Your task to perform on an android device: Do I have any events tomorrow? Image 0: 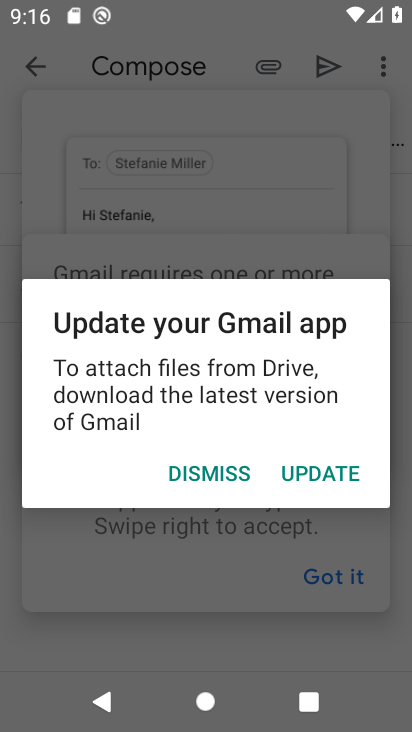
Step 0: press home button
Your task to perform on an android device: Do I have any events tomorrow? Image 1: 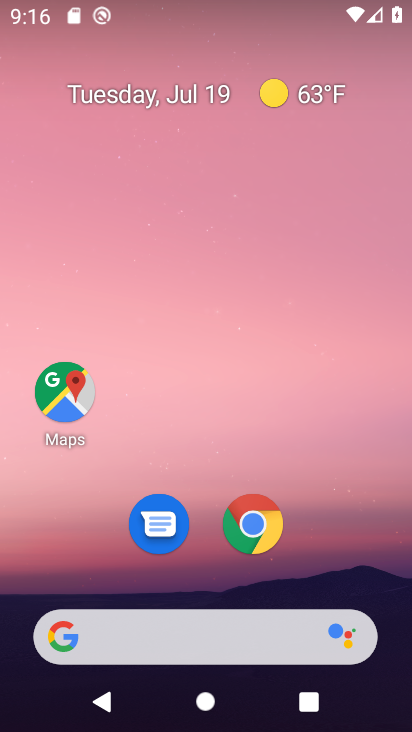
Step 1: drag from (150, 621) to (290, 108)
Your task to perform on an android device: Do I have any events tomorrow? Image 2: 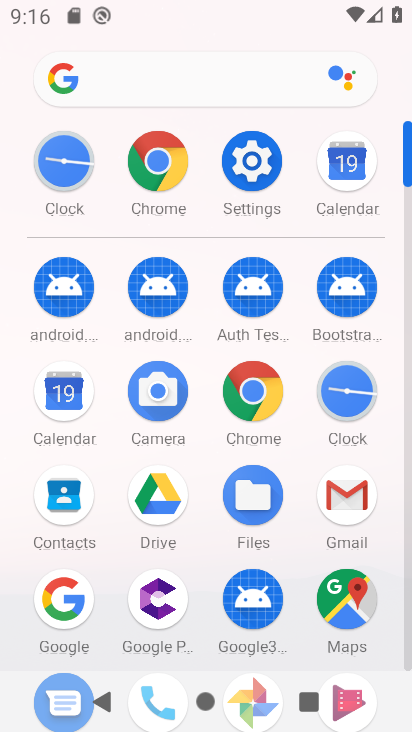
Step 2: click (57, 390)
Your task to perform on an android device: Do I have any events tomorrow? Image 3: 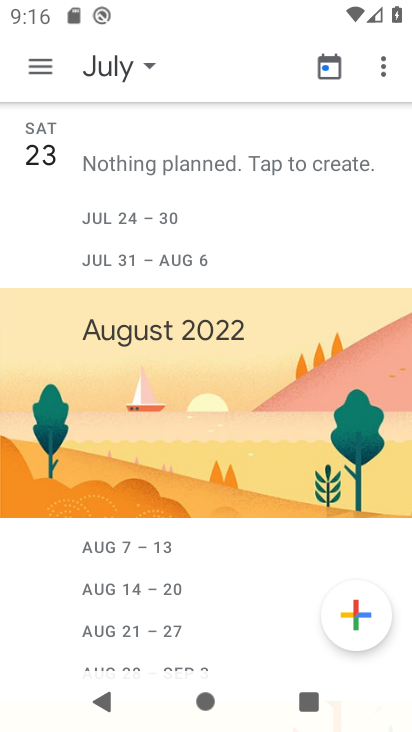
Step 3: click (109, 87)
Your task to perform on an android device: Do I have any events tomorrow? Image 4: 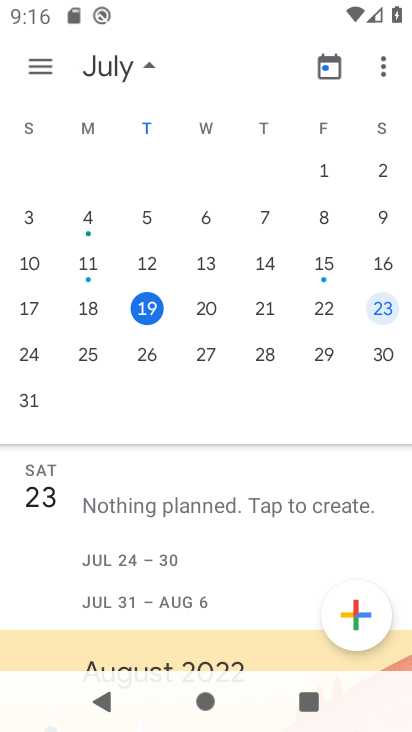
Step 4: click (200, 310)
Your task to perform on an android device: Do I have any events tomorrow? Image 5: 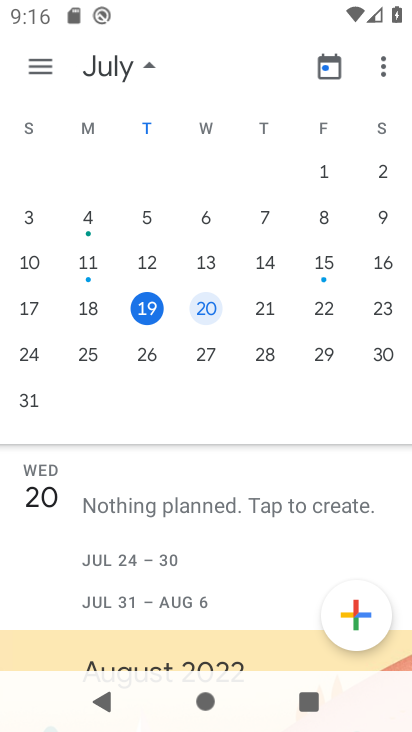
Step 5: click (45, 63)
Your task to perform on an android device: Do I have any events tomorrow? Image 6: 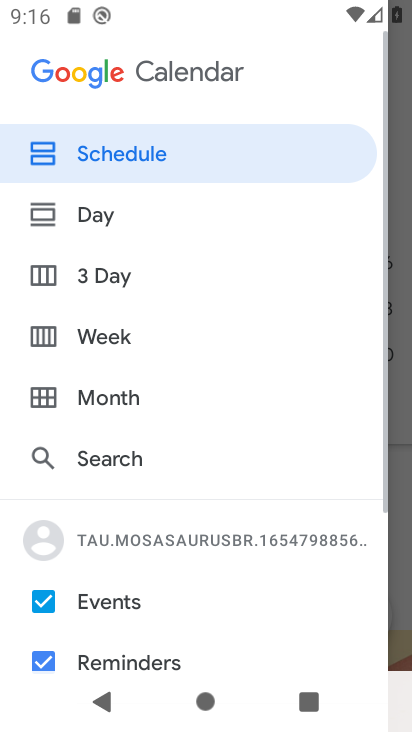
Step 6: click (98, 218)
Your task to perform on an android device: Do I have any events tomorrow? Image 7: 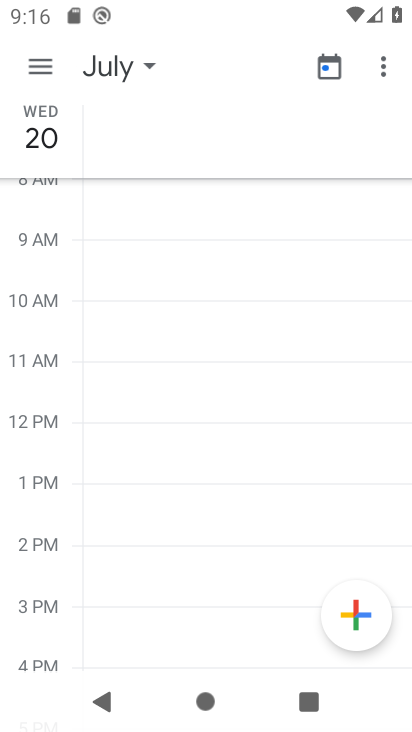
Step 7: click (34, 65)
Your task to perform on an android device: Do I have any events tomorrow? Image 8: 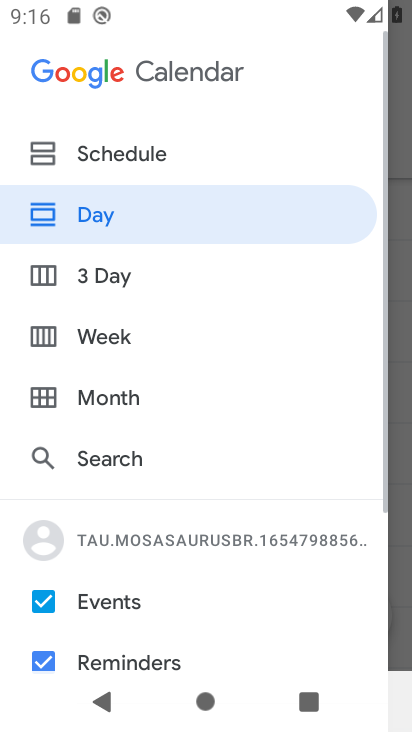
Step 8: click (129, 155)
Your task to perform on an android device: Do I have any events tomorrow? Image 9: 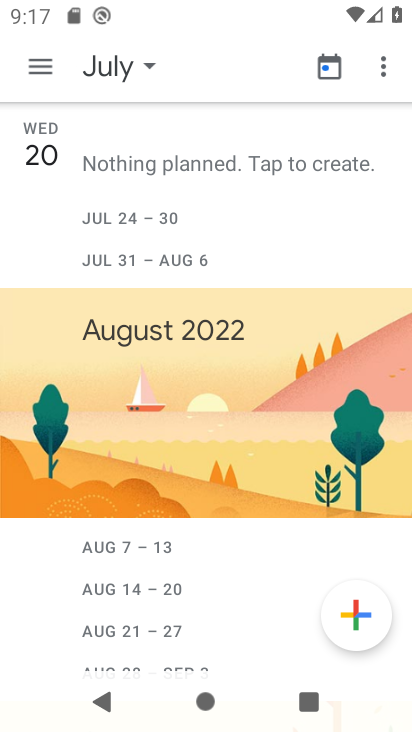
Step 9: task complete